Your task to perform on an android device: turn off notifications in google photos Image 0: 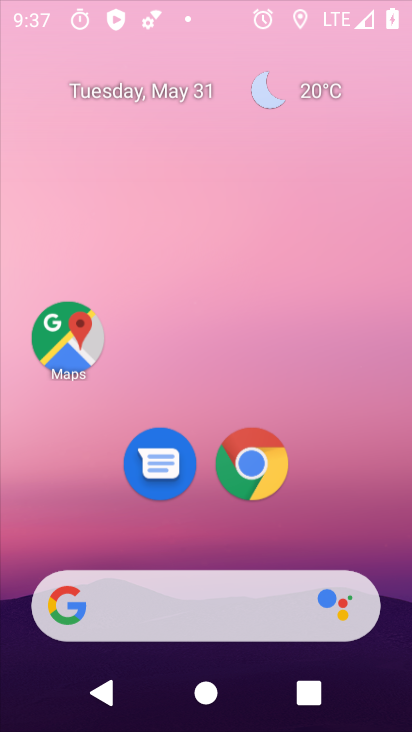
Step 0: click (239, 114)
Your task to perform on an android device: turn off notifications in google photos Image 1: 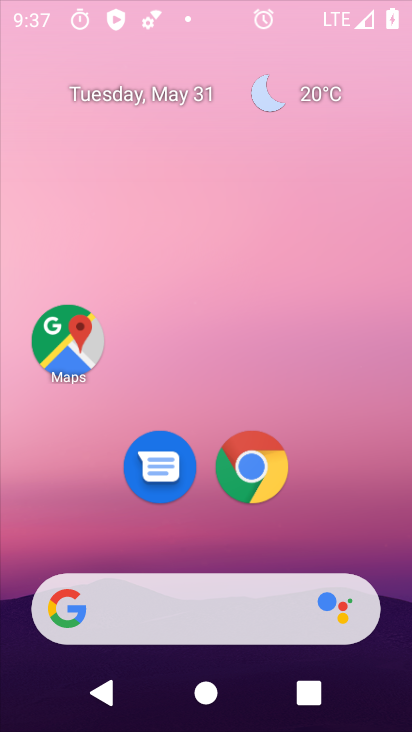
Step 1: drag from (202, 542) to (289, 99)
Your task to perform on an android device: turn off notifications in google photos Image 2: 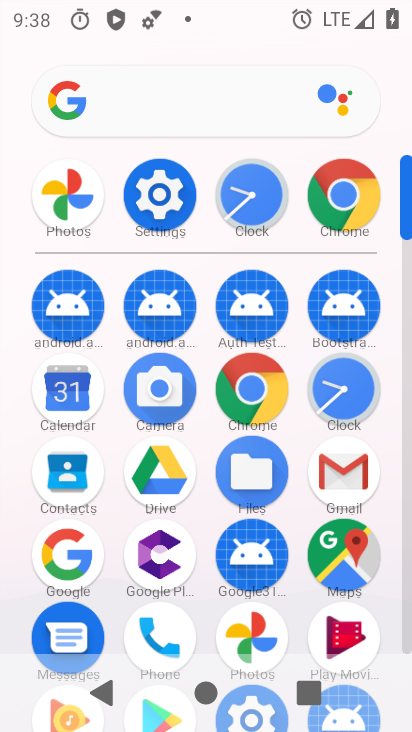
Step 2: click (257, 607)
Your task to perform on an android device: turn off notifications in google photos Image 3: 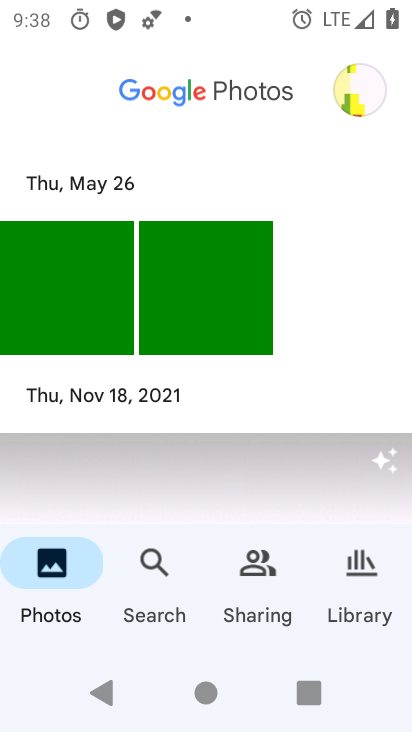
Step 3: drag from (250, 436) to (305, 111)
Your task to perform on an android device: turn off notifications in google photos Image 4: 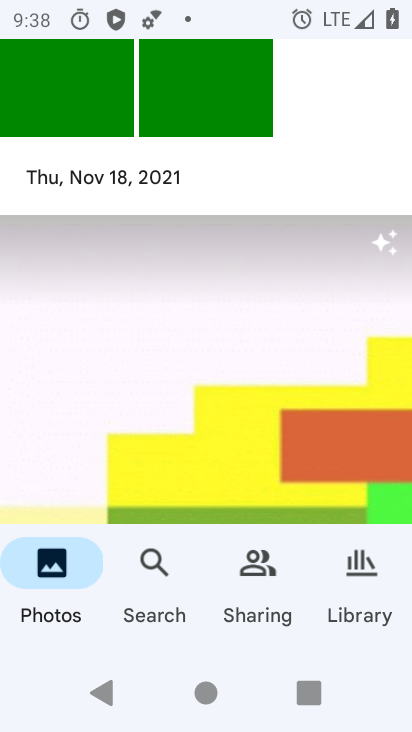
Step 4: click (299, 569)
Your task to perform on an android device: turn off notifications in google photos Image 5: 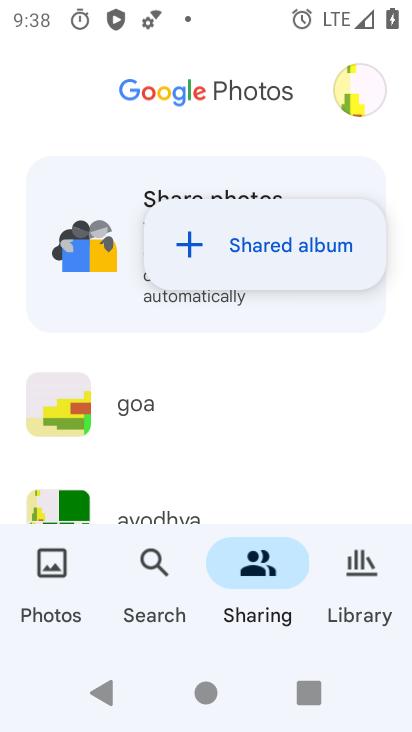
Step 5: click (75, 553)
Your task to perform on an android device: turn off notifications in google photos Image 6: 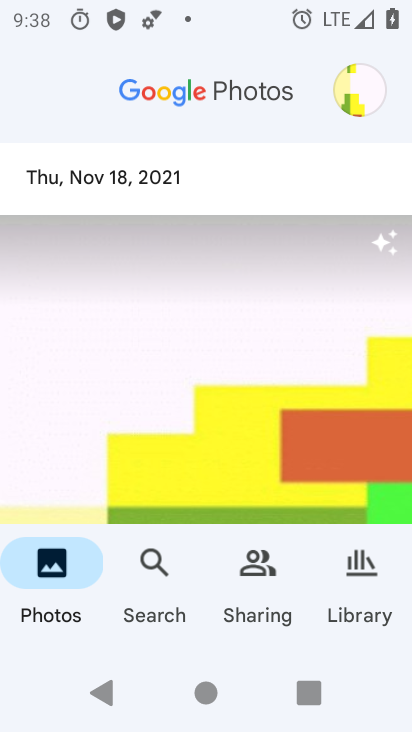
Step 6: click (352, 80)
Your task to perform on an android device: turn off notifications in google photos Image 7: 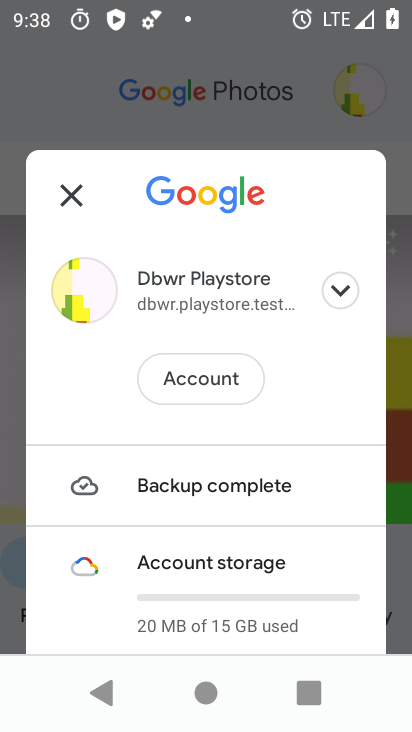
Step 7: drag from (182, 540) to (195, 214)
Your task to perform on an android device: turn off notifications in google photos Image 8: 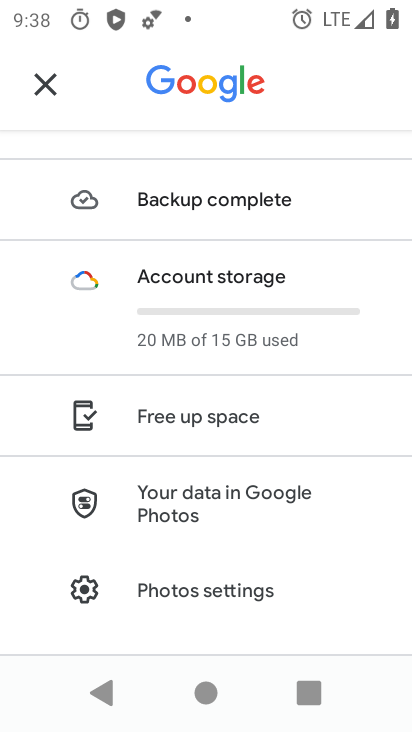
Step 8: click (186, 614)
Your task to perform on an android device: turn off notifications in google photos Image 9: 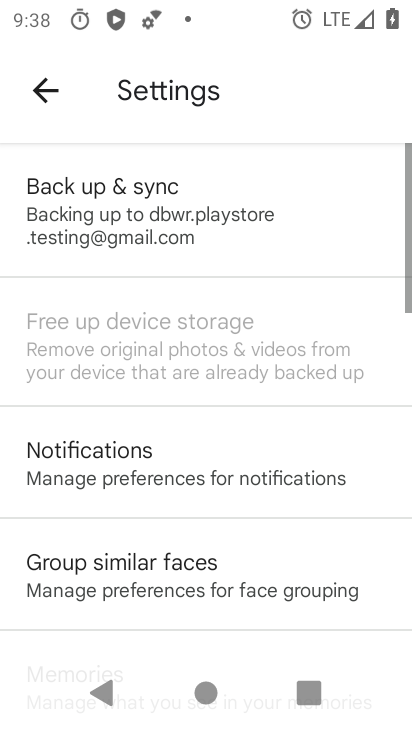
Step 9: drag from (191, 434) to (228, 167)
Your task to perform on an android device: turn off notifications in google photos Image 10: 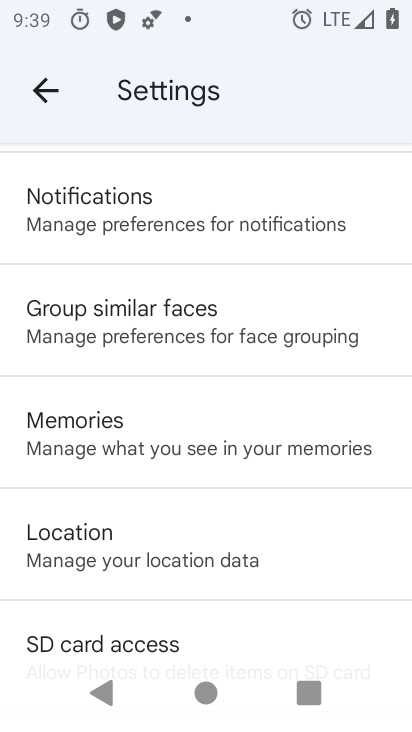
Step 10: drag from (232, 612) to (2, 463)
Your task to perform on an android device: turn off notifications in google photos Image 11: 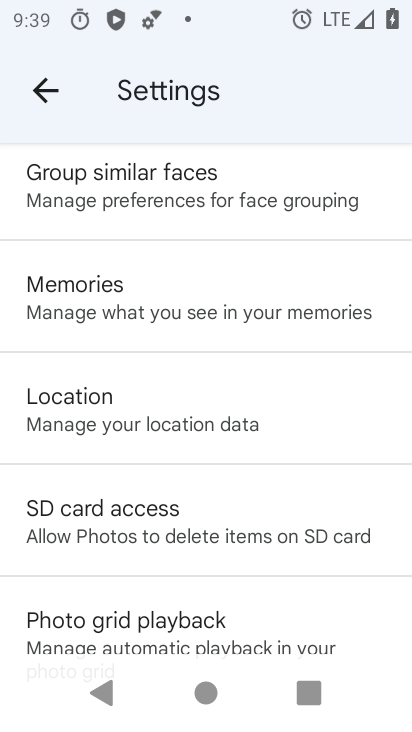
Step 11: drag from (213, 418) to (282, 721)
Your task to perform on an android device: turn off notifications in google photos Image 12: 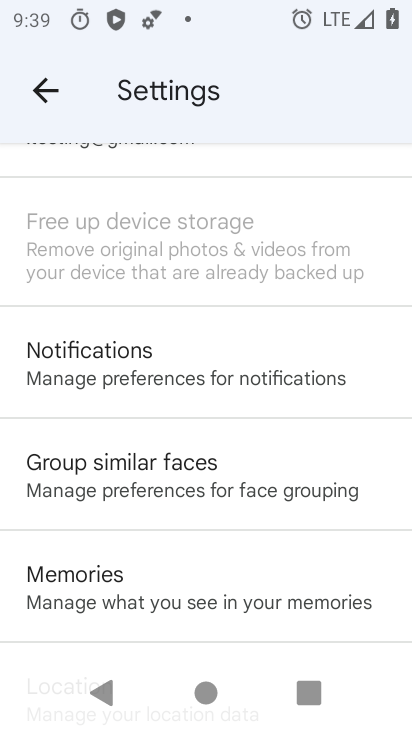
Step 12: click (191, 388)
Your task to perform on an android device: turn off notifications in google photos Image 13: 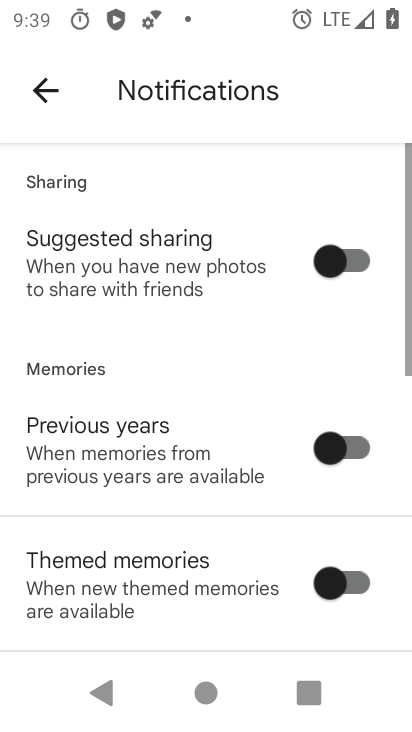
Step 13: drag from (131, 546) to (392, 666)
Your task to perform on an android device: turn off notifications in google photos Image 14: 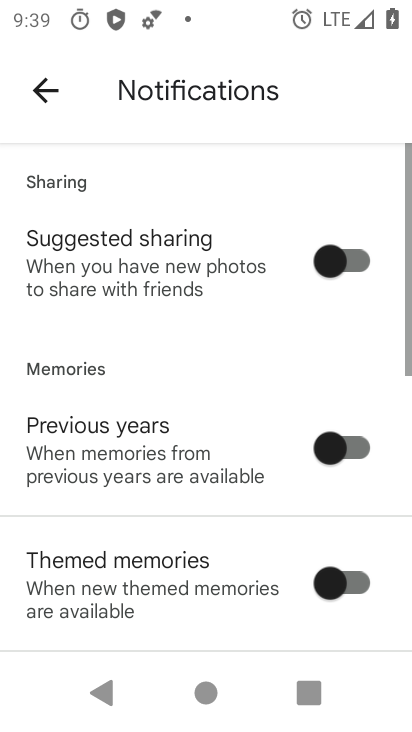
Step 14: drag from (226, 615) to (322, 106)
Your task to perform on an android device: turn off notifications in google photos Image 15: 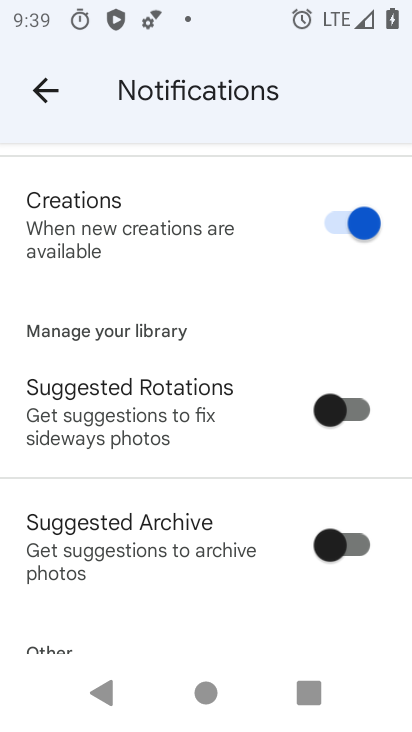
Step 15: drag from (174, 571) to (202, 5)
Your task to perform on an android device: turn off notifications in google photos Image 16: 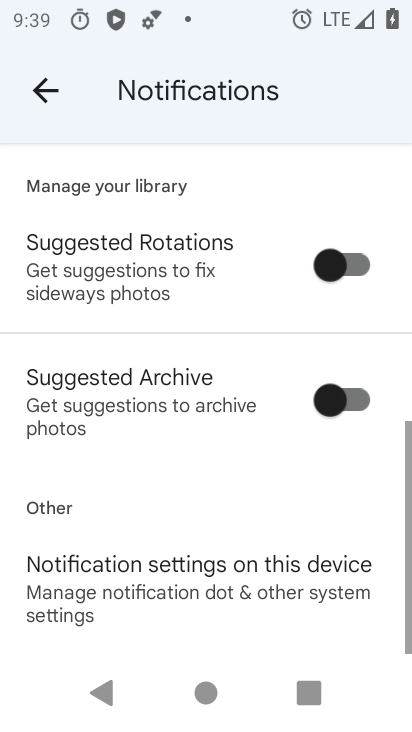
Step 16: click (146, 593)
Your task to perform on an android device: turn off notifications in google photos Image 17: 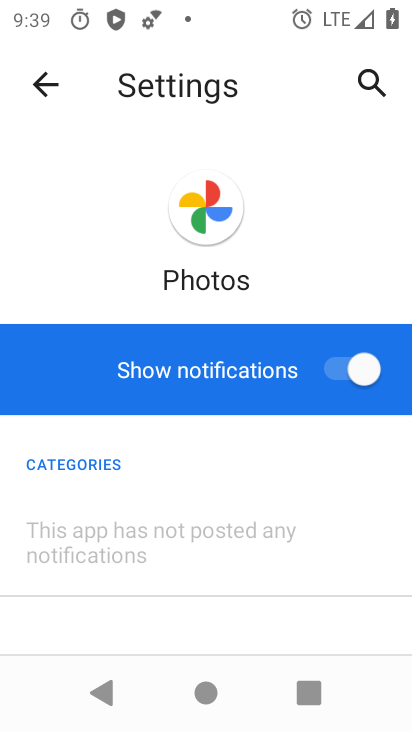
Step 17: click (338, 350)
Your task to perform on an android device: turn off notifications in google photos Image 18: 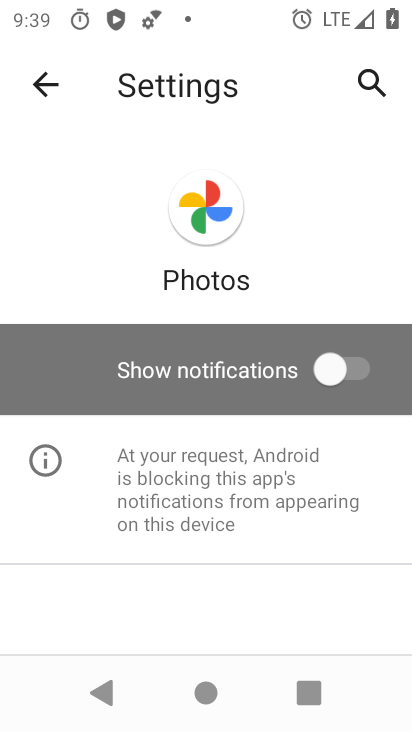
Step 18: task complete